Your task to perform on an android device: Go to Wikipedia Image 0: 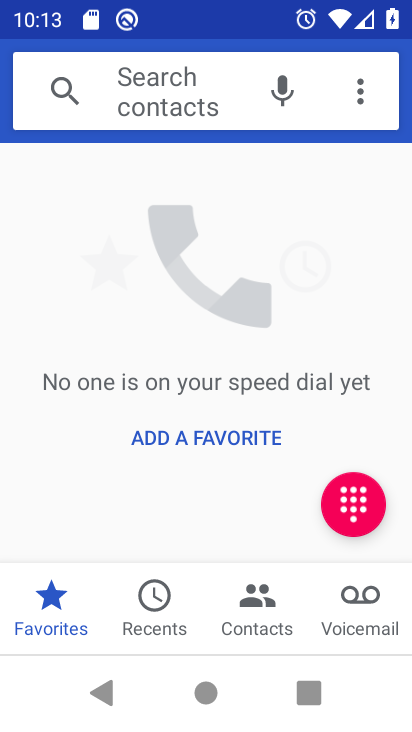
Step 0: press back button
Your task to perform on an android device: Go to Wikipedia Image 1: 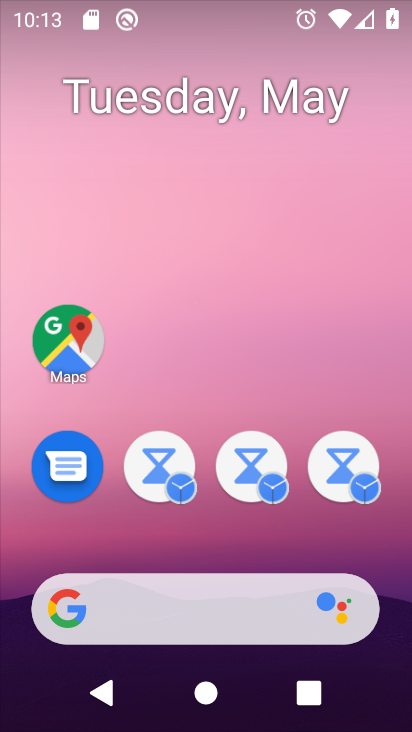
Step 1: drag from (280, 297) to (217, 15)
Your task to perform on an android device: Go to Wikipedia Image 2: 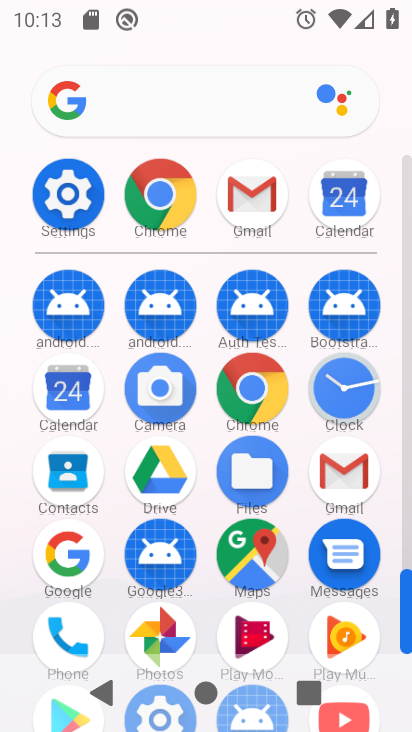
Step 2: click (152, 173)
Your task to perform on an android device: Go to Wikipedia Image 3: 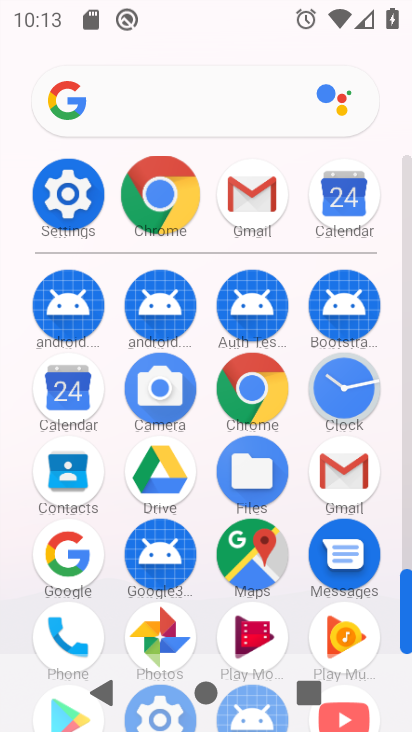
Step 3: click (152, 186)
Your task to perform on an android device: Go to Wikipedia Image 4: 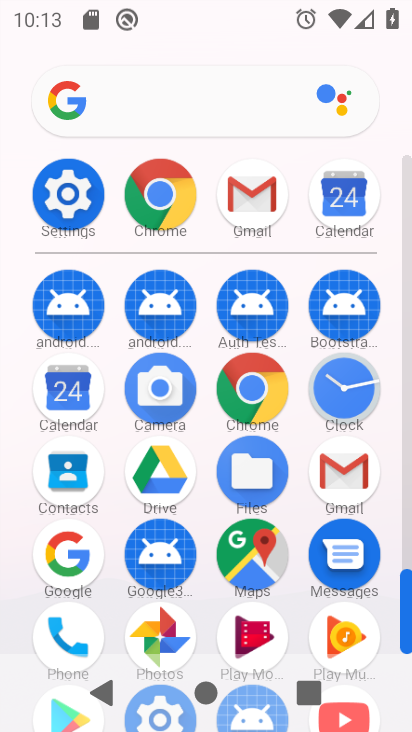
Step 4: click (153, 187)
Your task to perform on an android device: Go to Wikipedia Image 5: 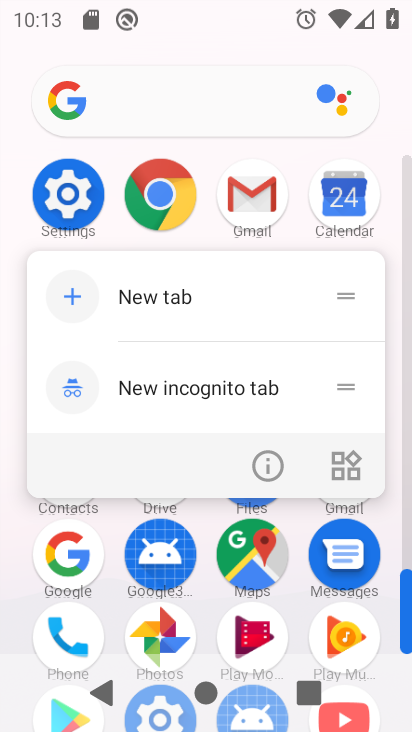
Step 5: click (153, 187)
Your task to perform on an android device: Go to Wikipedia Image 6: 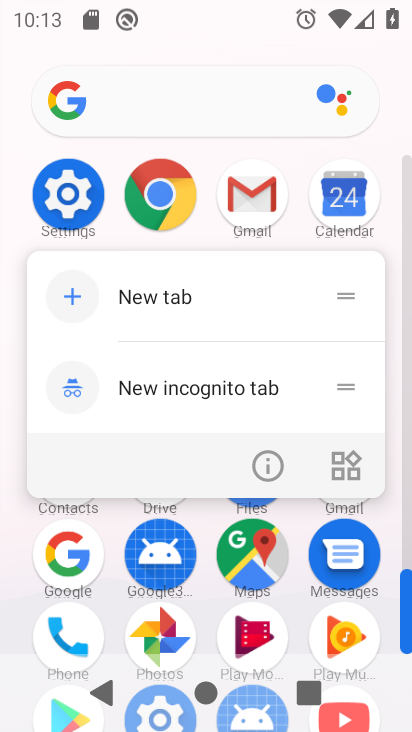
Step 6: click (155, 301)
Your task to perform on an android device: Go to Wikipedia Image 7: 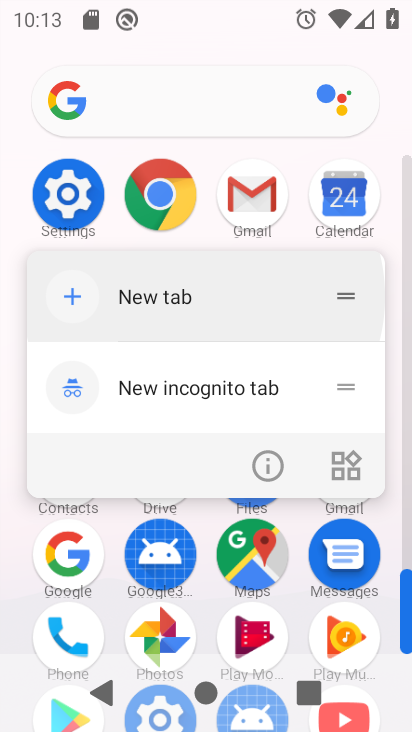
Step 7: click (155, 301)
Your task to perform on an android device: Go to Wikipedia Image 8: 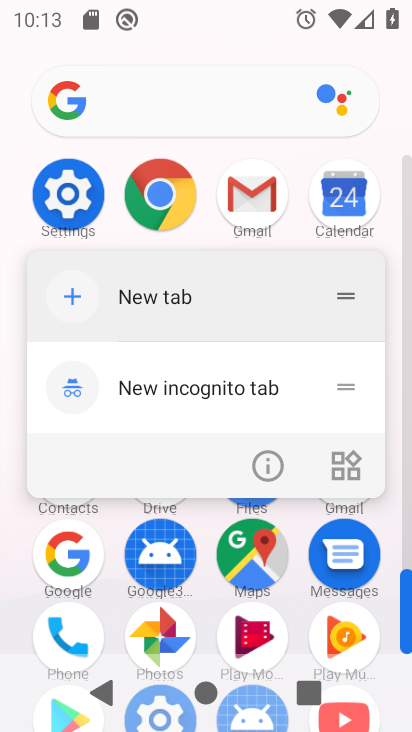
Step 8: click (155, 301)
Your task to perform on an android device: Go to Wikipedia Image 9: 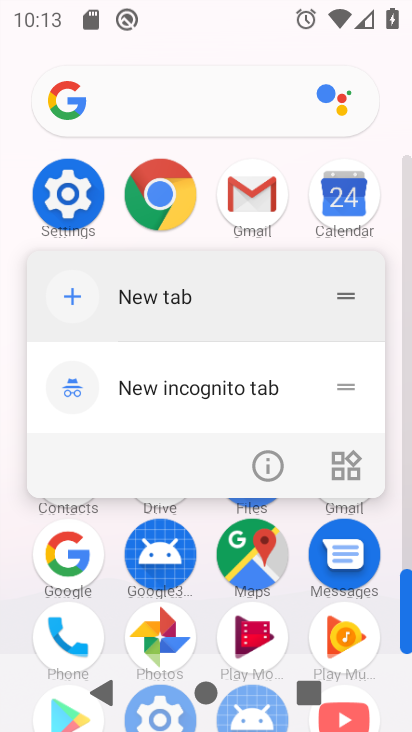
Step 9: click (156, 299)
Your task to perform on an android device: Go to Wikipedia Image 10: 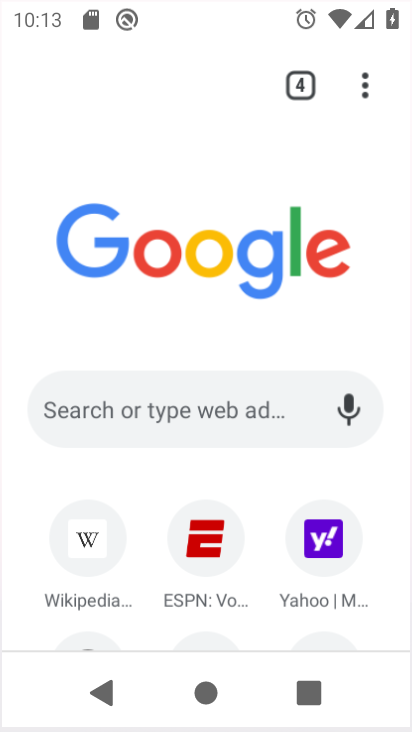
Step 10: click (165, 300)
Your task to perform on an android device: Go to Wikipedia Image 11: 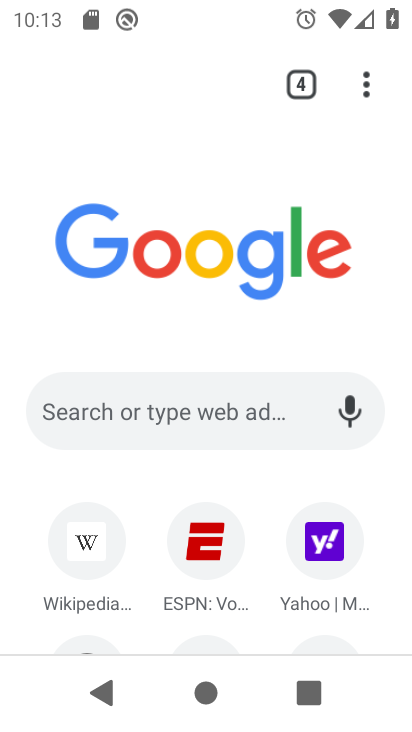
Step 11: click (166, 300)
Your task to perform on an android device: Go to Wikipedia Image 12: 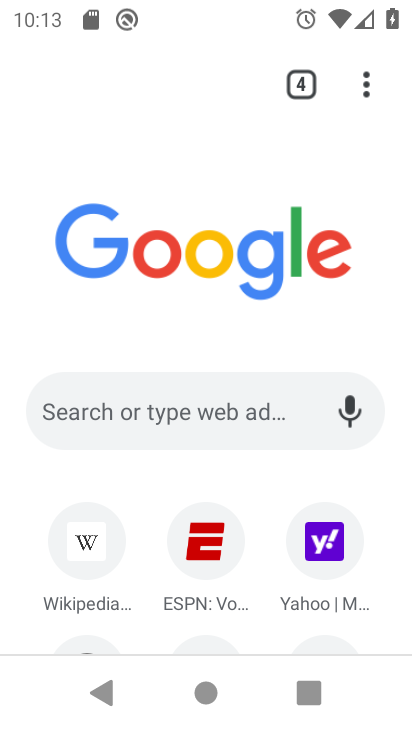
Step 12: drag from (269, 575) to (211, 151)
Your task to perform on an android device: Go to Wikipedia Image 13: 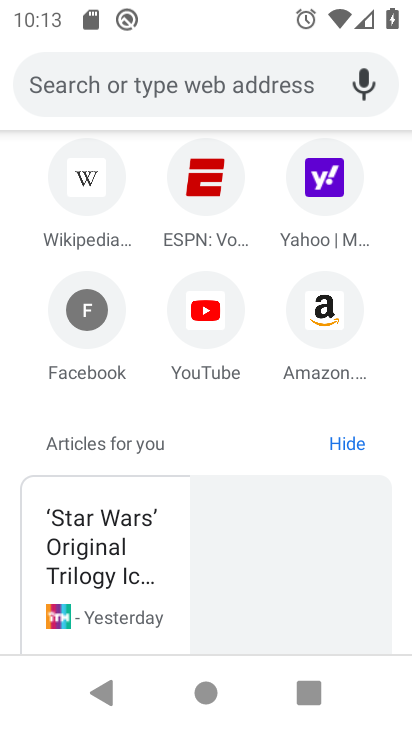
Step 13: drag from (237, 389) to (205, 152)
Your task to perform on an android device: Go to Wikipedia Image 14: 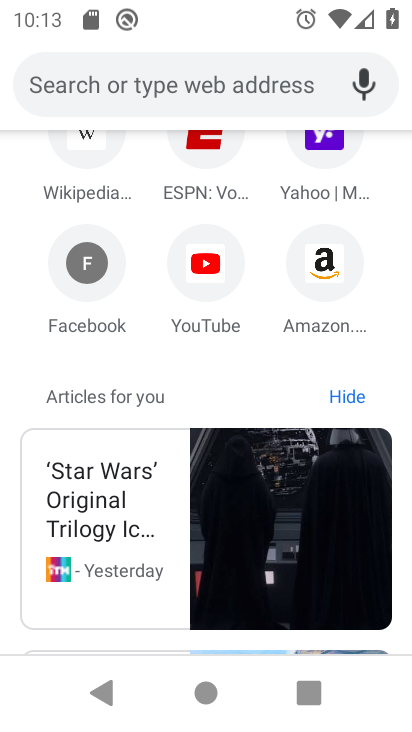
Step 14: drag from (111, 224) to (179, 570)
Your task to perform on an android device: Go to Wikipedia Image 15: 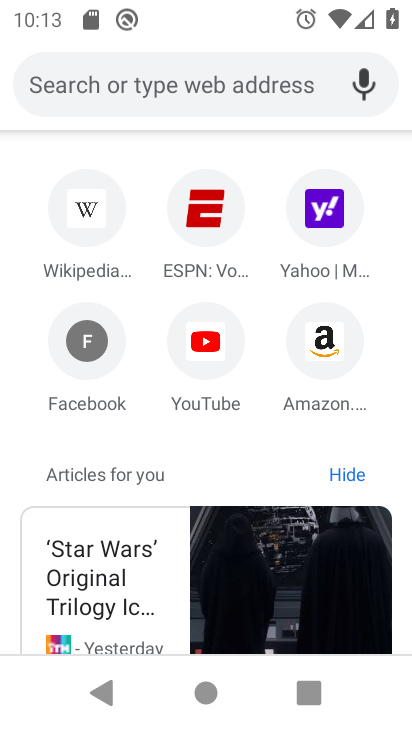
Step 15: click (79, 205)
Your task to perform on an android device: Go to Wikipedia Image 16: 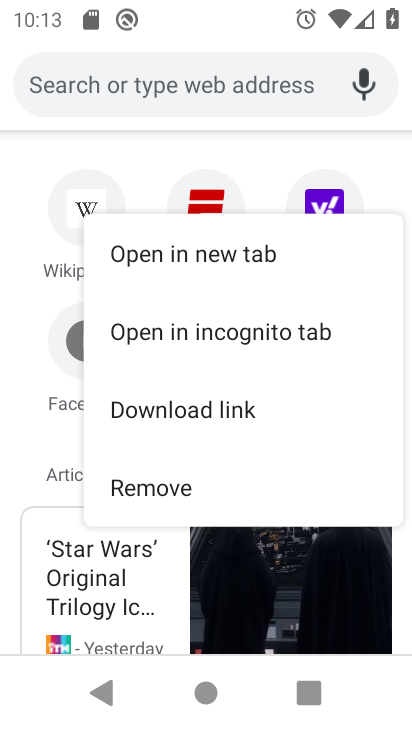
Step 16: click (86, 204)
Your task to perform on an android device: Go to Wikipedia Image 17: 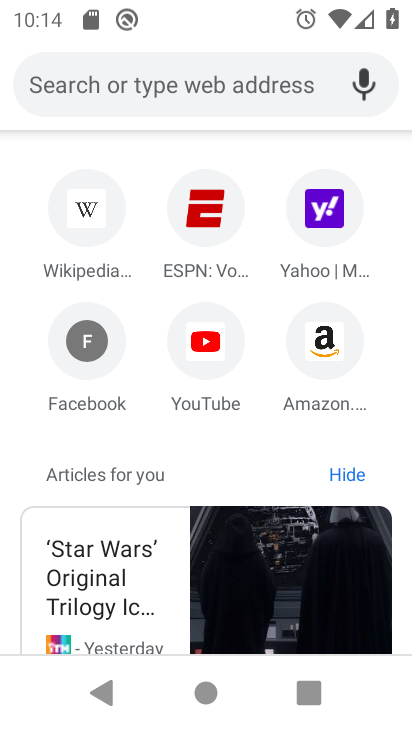
Step 17: task complete